Your task to perform on an android device: see creations saved in the google photos Image 0: 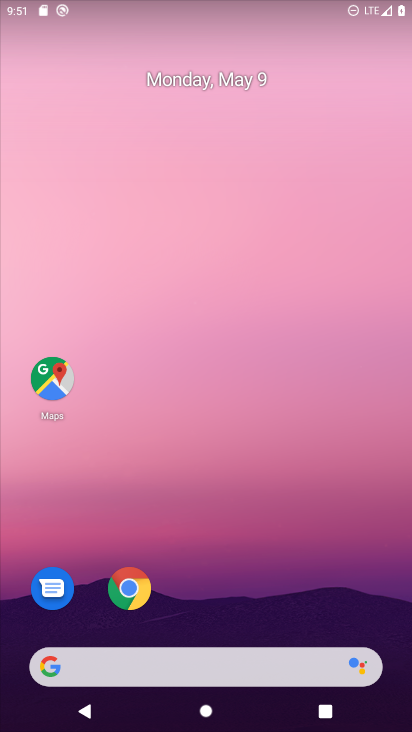
Step 0: drag from (262, 566) to (272, 44)
Your task to perform on an android device: see creations saved in the google photos Image 1: 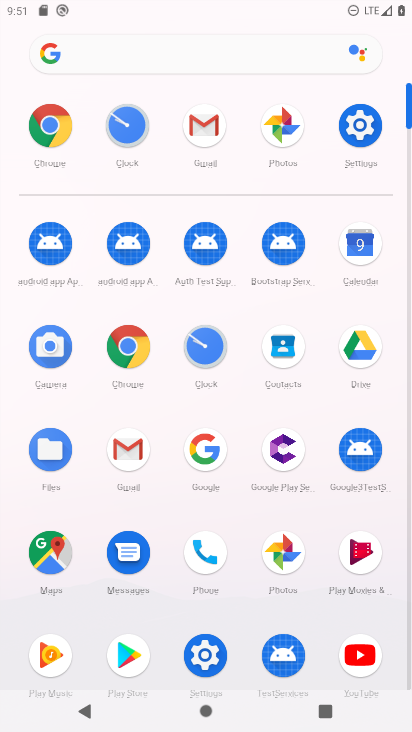
Step 1: click (367, 144)
Your task to perform on an android device: see creations saved in the google photos Image 2: 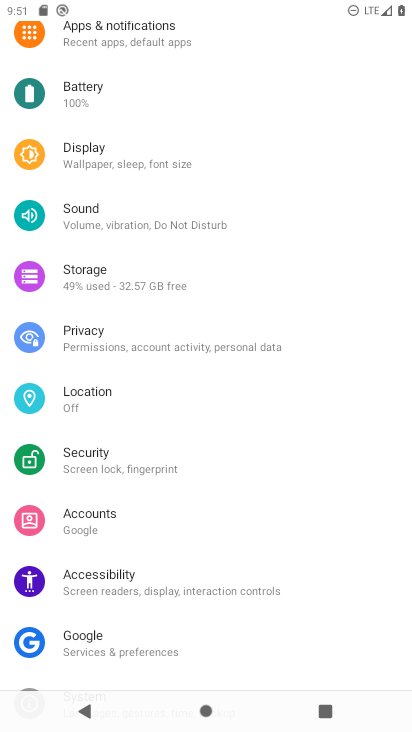
Step 2: press home button
Your task to perform on an android device: see creations saved in the google photos Image 3: 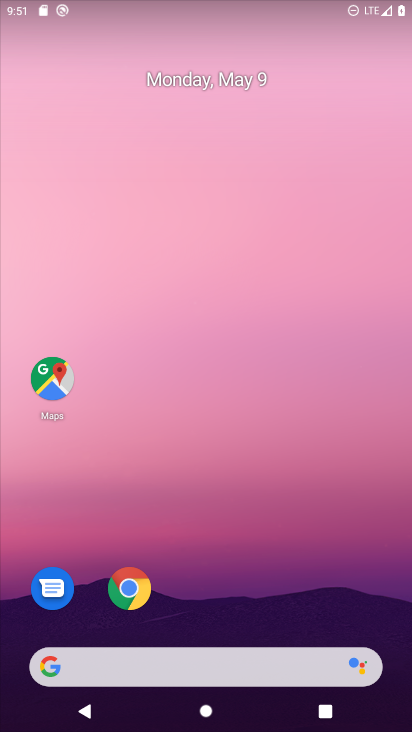
Step 3: drag from (259, 596) to (279, 81)
Your task to perform on an android device: see creations saved in the google photos Image 4: 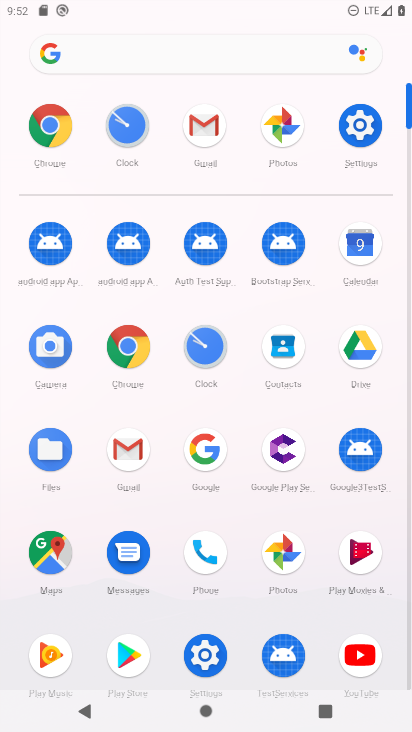
Step 4: click (274, 159)
Your task to perform on an android device: see creations saved in the google photos Image 5: 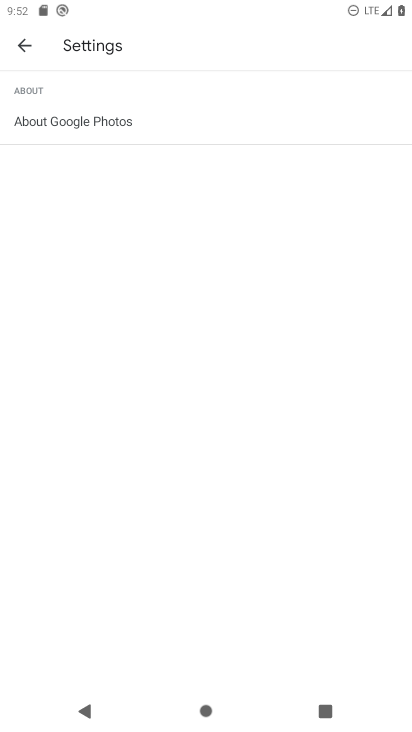
Step 5: click (33, 35)
Your task to perform on an android device: see creations saved in the google photos Image 6: 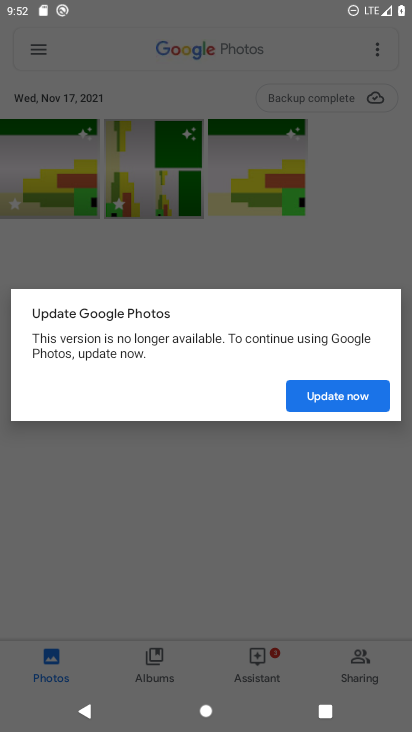
Step 6: click (315, 399)
Your task to perform on an android device: see creations saved in the google photos Image 7: 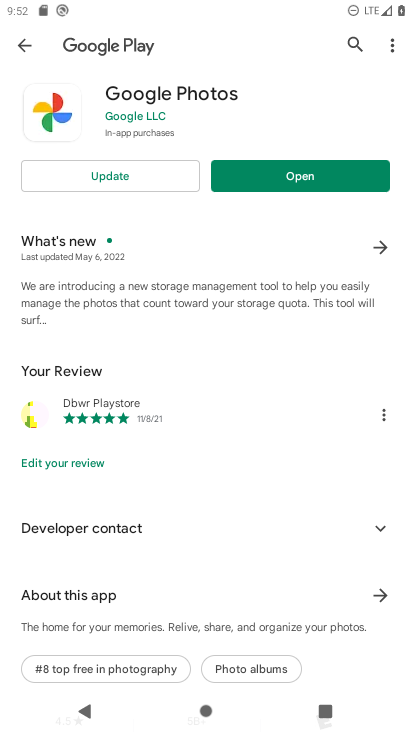
Step 7: click (144, 179)
Your task to perform on an android device: see creations saved in the google photos Image 8: 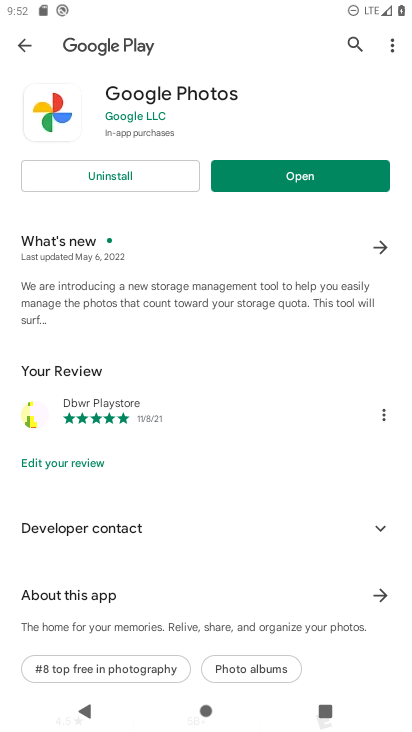
Step 8: click (257, 185)
Your task to perform on an android device: see creations saved in the google photos Image 9: 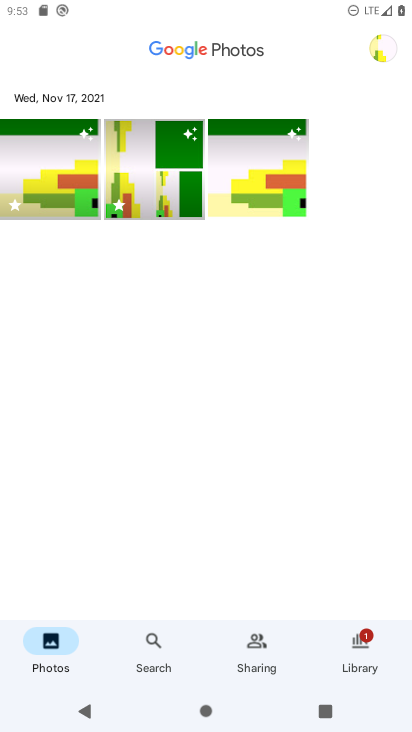
Step 9: task complete